Your task to perform on an android device: toggle airplane mode Image 0: 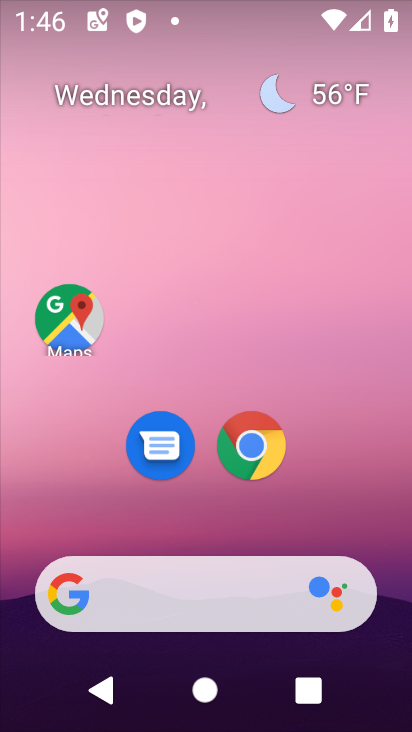
Step 0: drag from (219, 557) to (241, 5)
Your task to perform on an android device: toggle airplane mode Image 1: 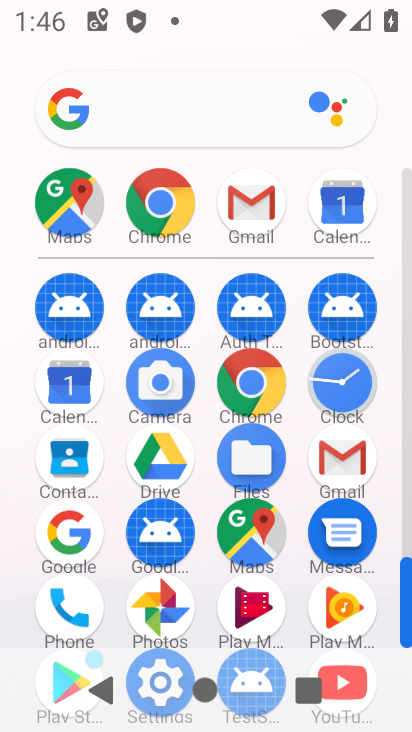
Step 1: click (161, 662)
Your task to perform on an android device: toggle airplane mode Image 2: 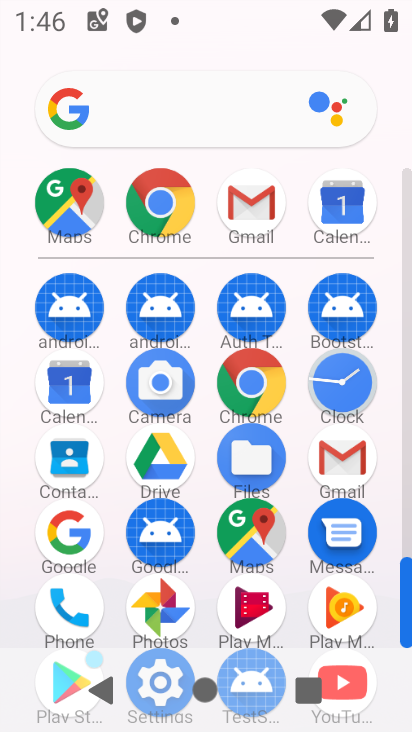
Step 2: drag from (118, 541) to (112, 156)
Your task to perform on an android device: toggle airplane mode Image 3: 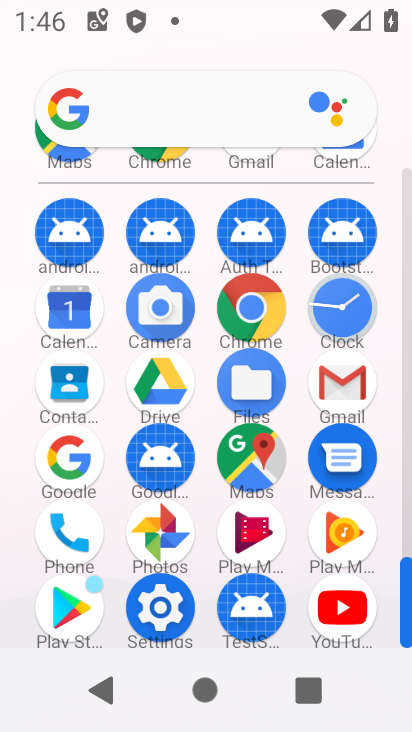
Step 3: click (168, 605)
Your task to perform on an android device: toggle airplane mode Image 4: 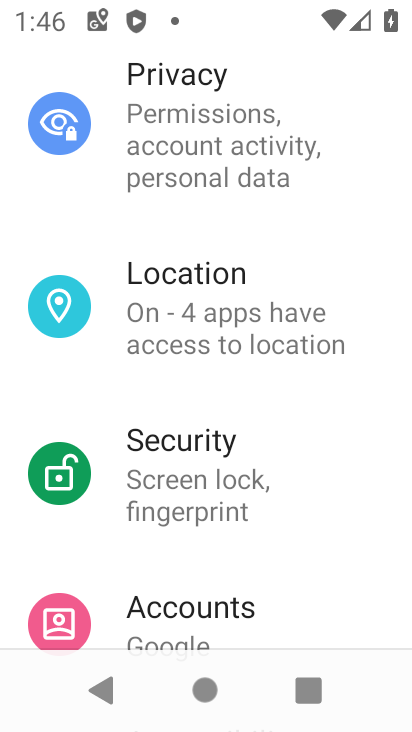
Step 4: drag from (226, 228) to (180, 644)
Your task to perform on an android device: toggle airplane mode Image 5: 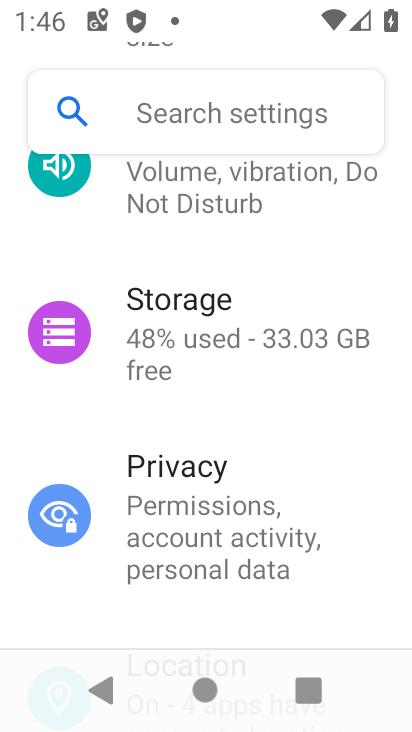
Step 5: drag from (273, 175) to (235, 576)
Your task to perform on an android device: toggle airplane mode Image 6: 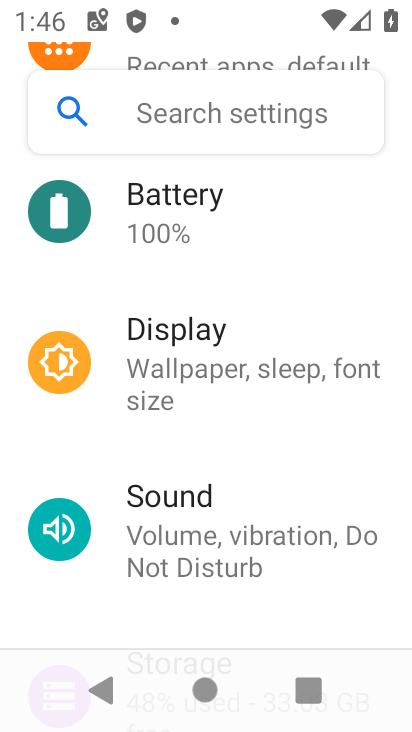
Step 6: drag from (243, 251) to (212, 555)
Your task to perform on an android device: toggle airplane mode Image 7: 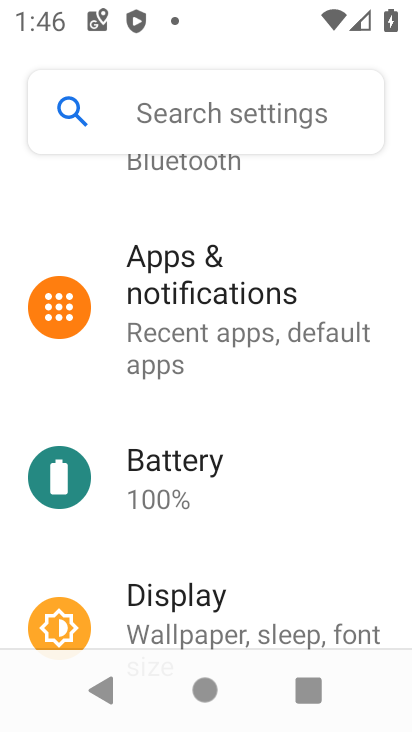
Step 7: drag from (149, 211) to (186, 417)
Your task to perform on an android device: toggle airplane mode Image 8: 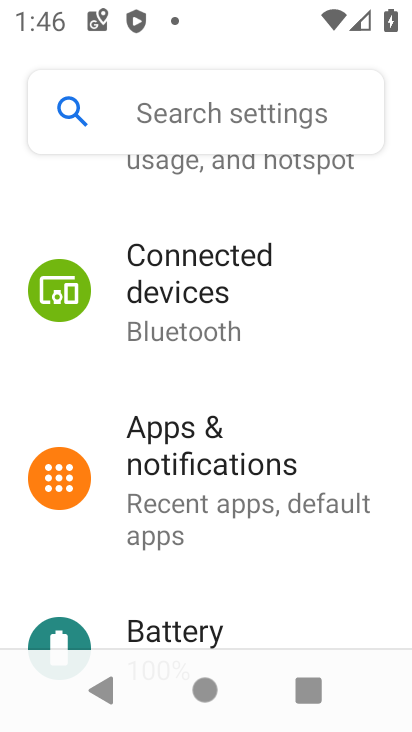
Step 8: drag from (205, 215) to (195, 464)
Your task to perform on an android device: toggle airplane mode Image 9: 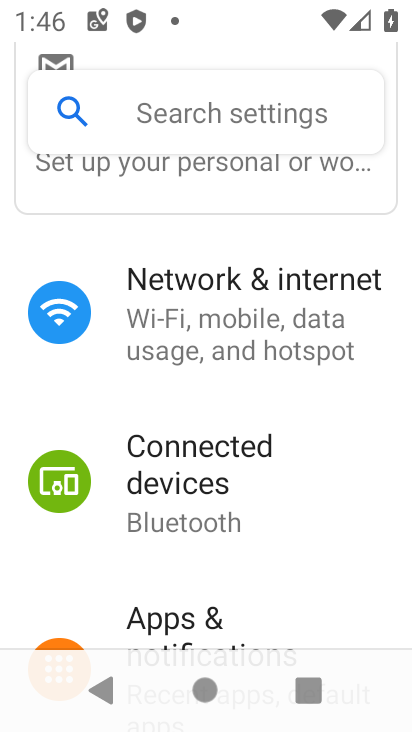
Step 9: click (221, 328)
Your task to perform on an android device: toggle airplane mode Image 10: 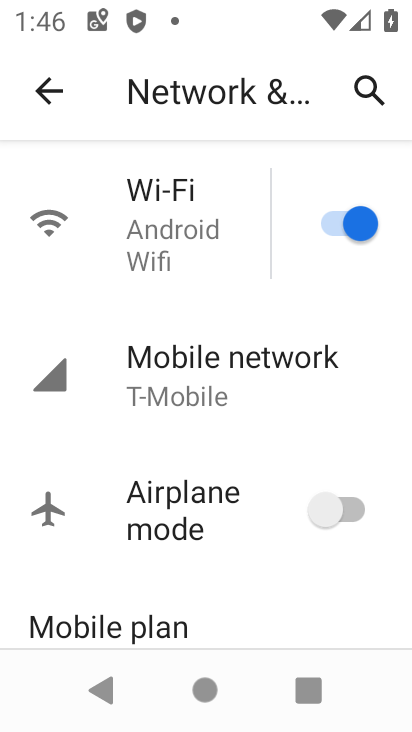
Step 10: click (329, 522)
Your task to perform on an android device: toggle airplane mode Image 11: 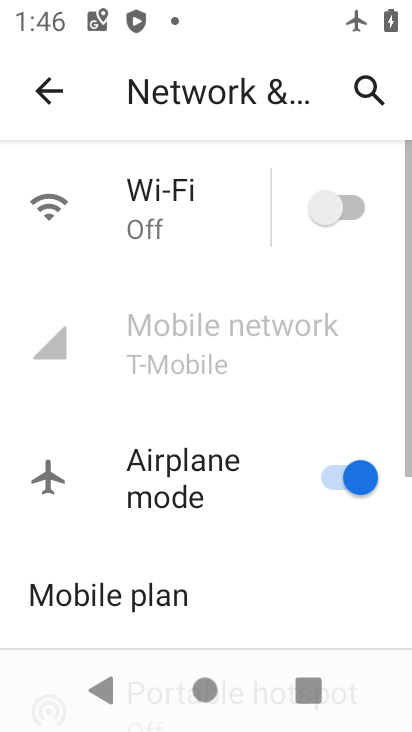
Step 11: task complete